Your task to perform on an android device: Open Google Maps Image 0: 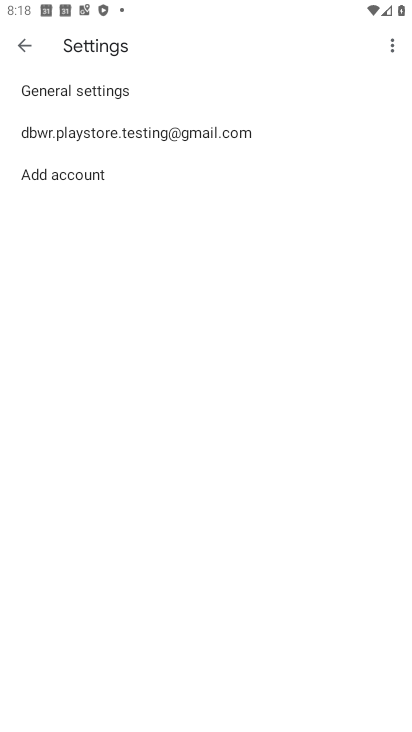
Step 0: press home button
Your task to perform on an android device: Open Google Maps Image 1: 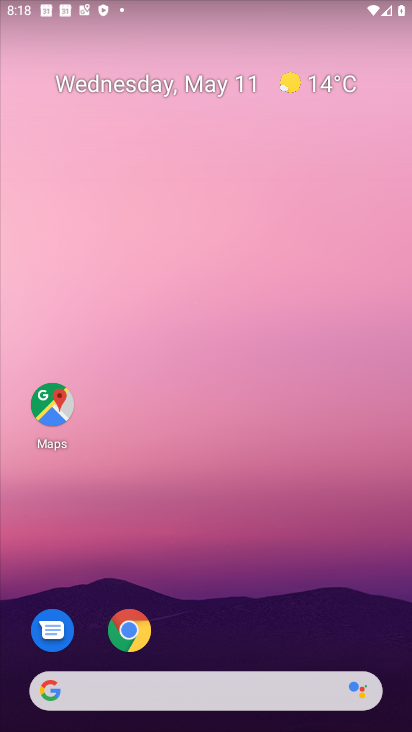
Step 1: click (43, 401)
Your task to perform on an android device: Open Google Maps Image 2: 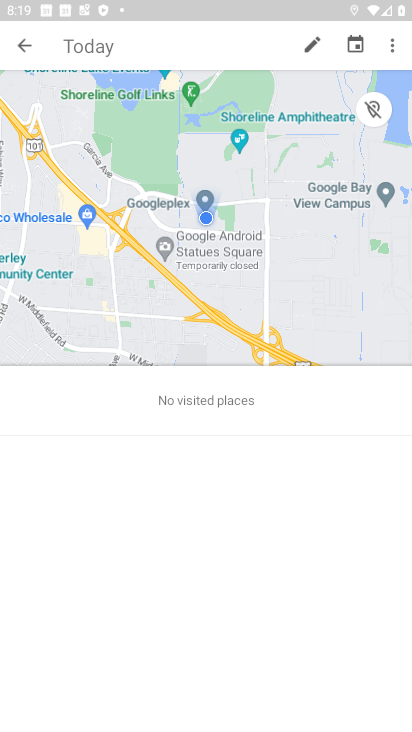
Step 2: task complete